Your task to perform on an android device: delete location history Image 0: 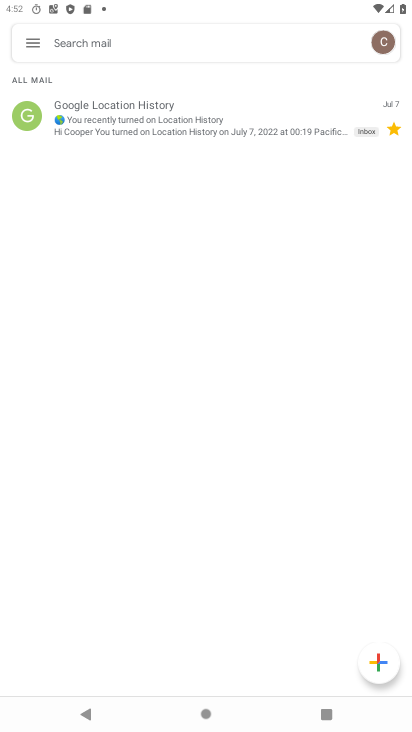
Step 0: press back button
Your task to perform on an android device: delete location history Image 1: 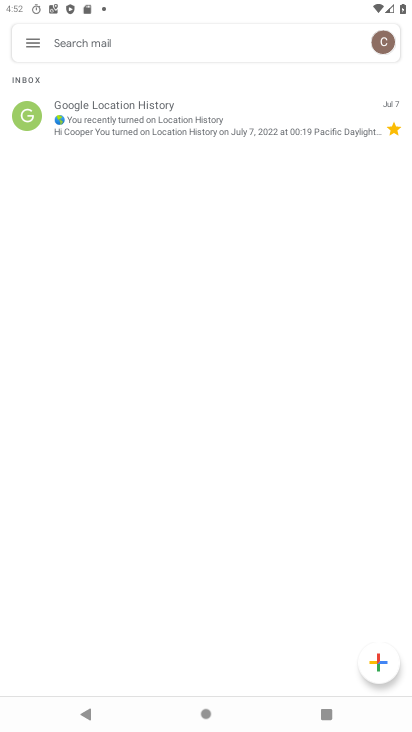
Step 1: press back button
Your task to perform on an android device: delete location history Image 2: 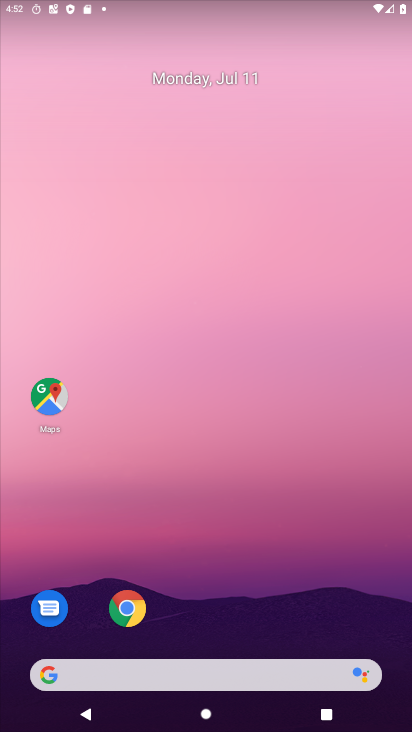
Step 2: click (184, 122)
Your task to perform on an android device: delete location history Image 3: 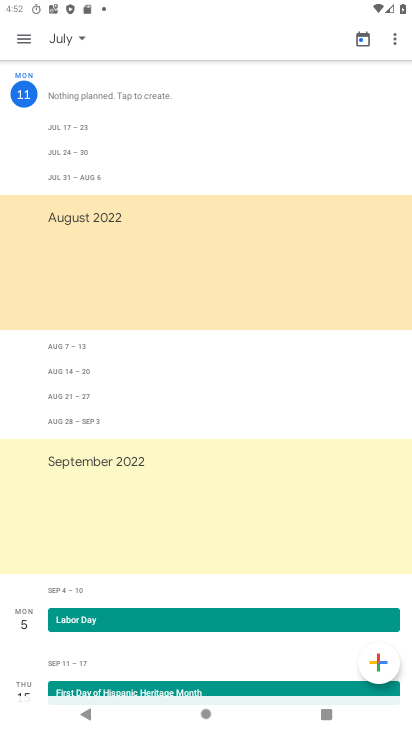
Step 3: press back button
Your task to perform on an android device: delete location history Image 4: 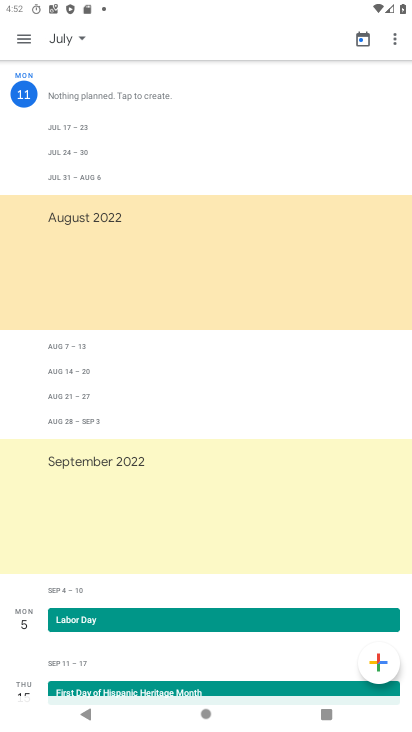
Step 4: press back button
Your task to perform on an android device: delete location history Image 5: 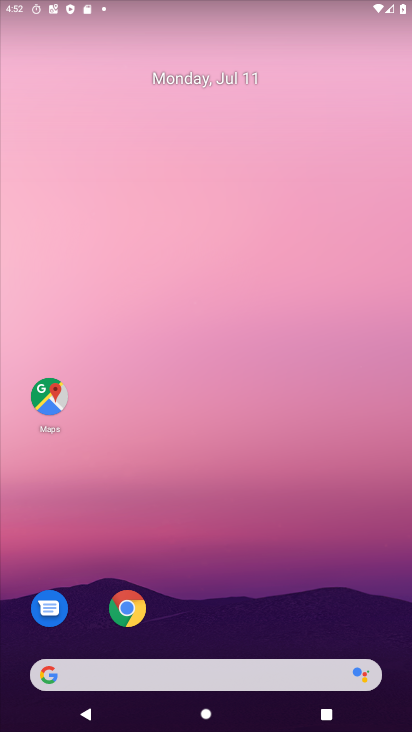
Step 5: drag from (271, 673) to (170, 36)
Your task to perform on an android device: delete location history Image 6: 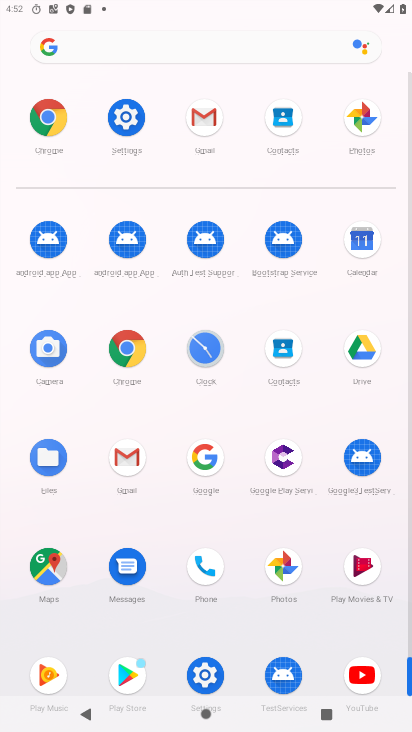
Step 6: click (133, 112)
Your task to perform on an android device: delete location history Image 7: 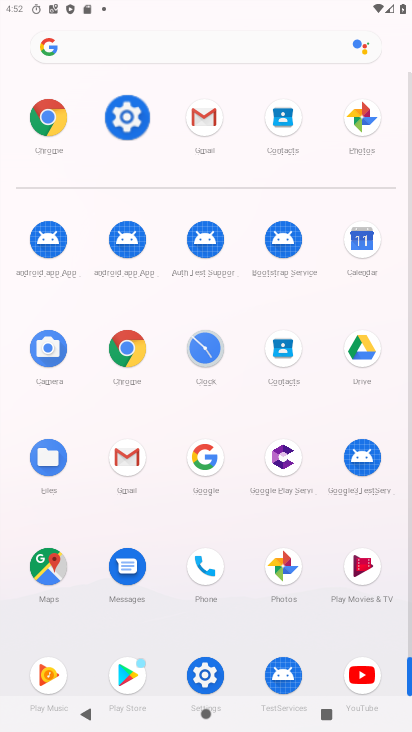
Step 7: click (121, 121)
Your task to perform on an android device: delete location history Image 8: 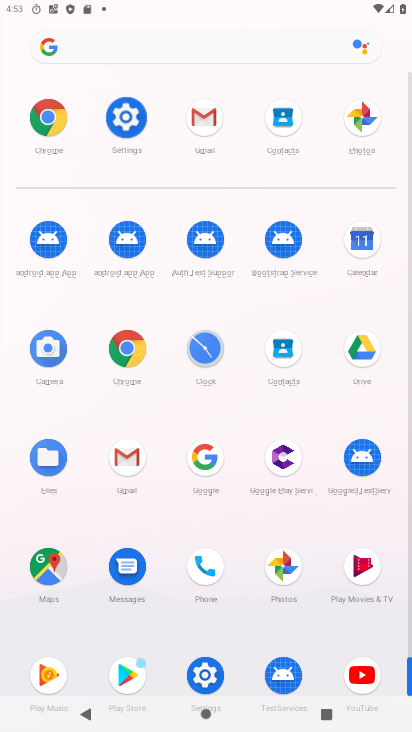
Step 8: click (121, 121)
Your task to perform on an android device: delete location history Image 9: 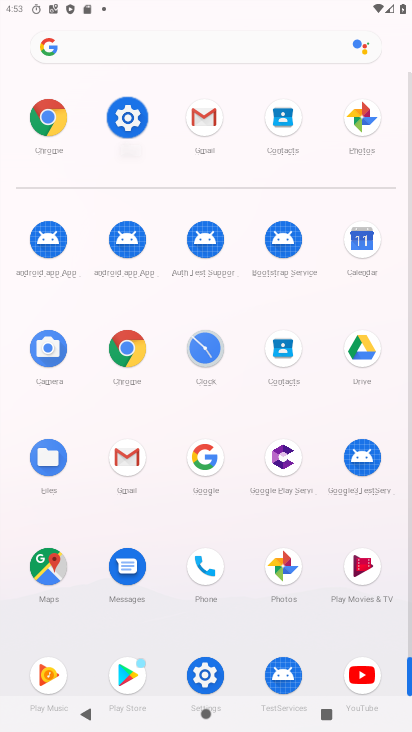
Step 9: click (121, 121)
Your task to perform on an android device: delete location history Image 10: 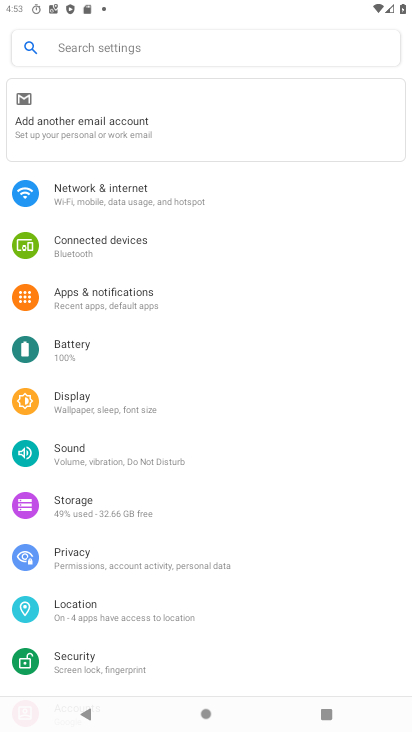
Step 10: click (65, 612)
Your task to perform on an android device: delete location history Image 11: 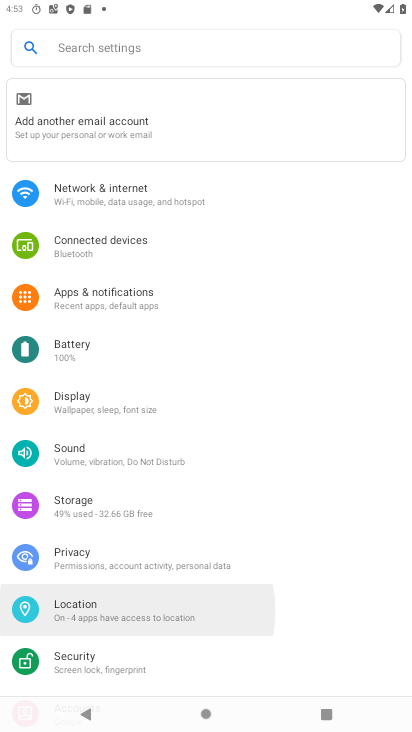
Step 11: click (74, 612)
Your task to perform on an android device: delete location history Image 12: 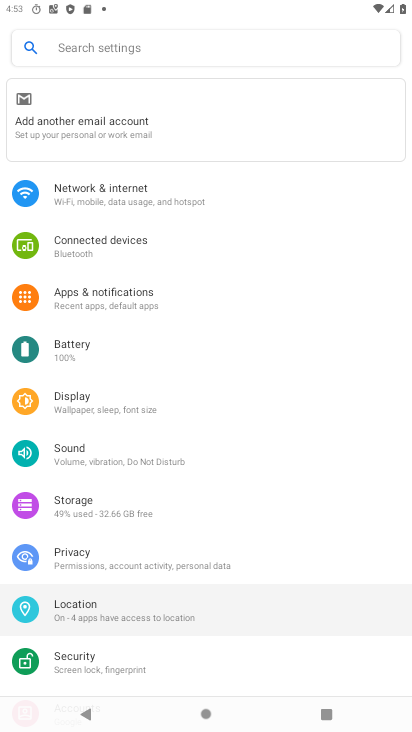
Step 12: click (106, 603)
Your task to perform on an android device: delete location history Image 13: 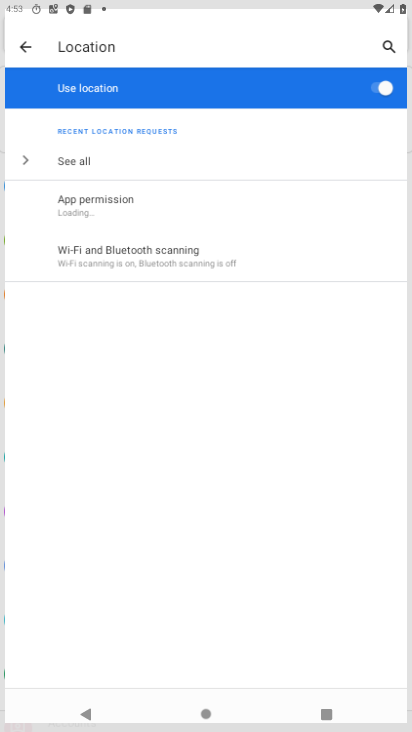
Step 13: click (107, 603)
Your task to perform on an android device: delete location history Image 14: 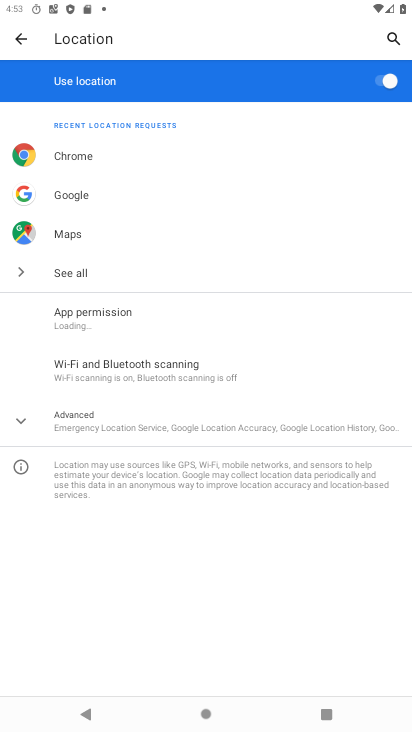
Step 14: click (191, 423)
Your task to perform on an android device: delete location history Image 15: 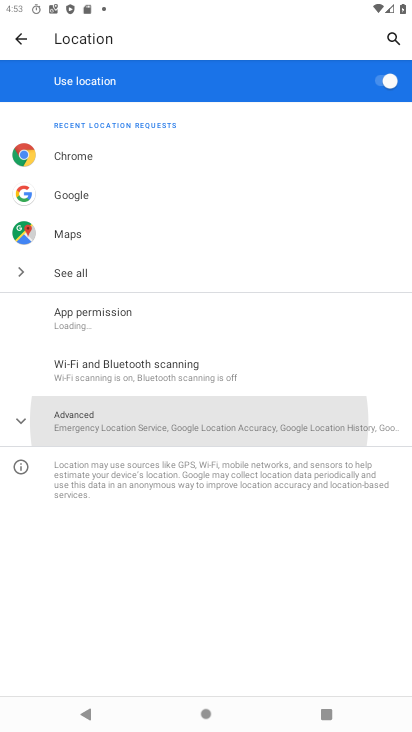
Step 15: click (191, 423)
Your task to perform on an android device: delete location history Image 16: 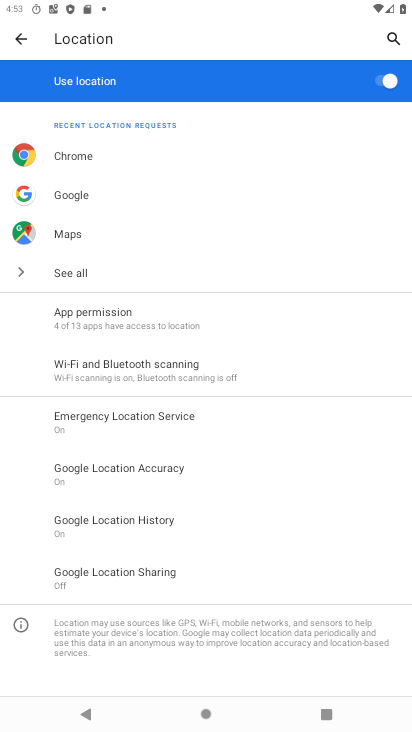
Step 16: click (151, 520)
Your task to perform on an android device: delete location history Image 17: 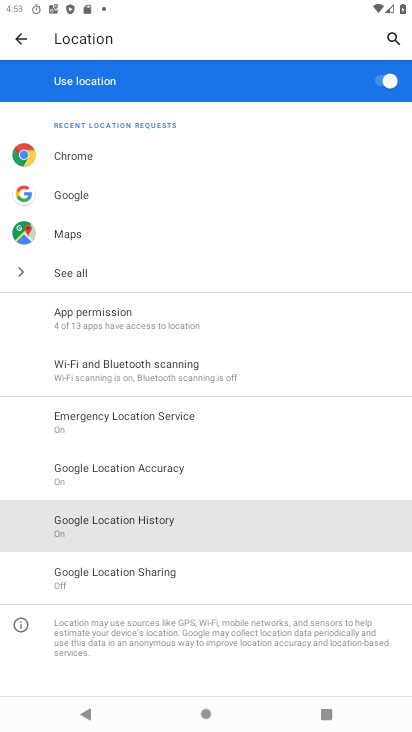
Step 17: click (150, 519)
Your task to perform on an android device: delete location history Image 18: 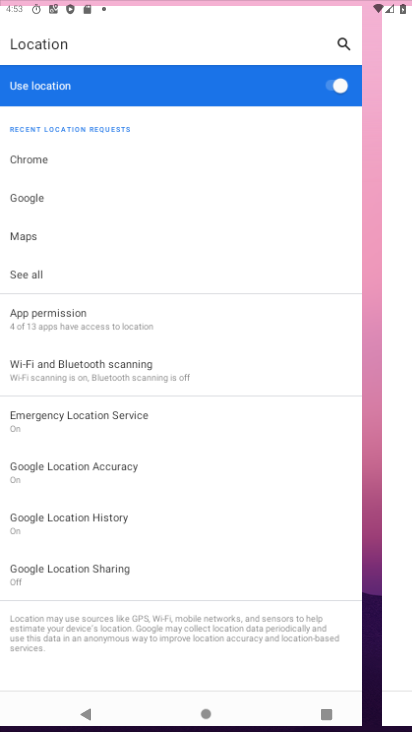
Step 18: click (150, 519)
Your task to perform on an android device: delete location history Image 19: 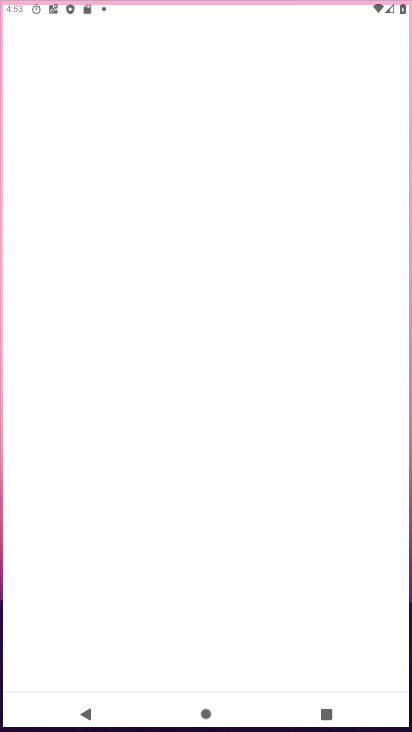
Step 19: click (161, 520)
Your task to perform on an android device: delete location history Image 20: 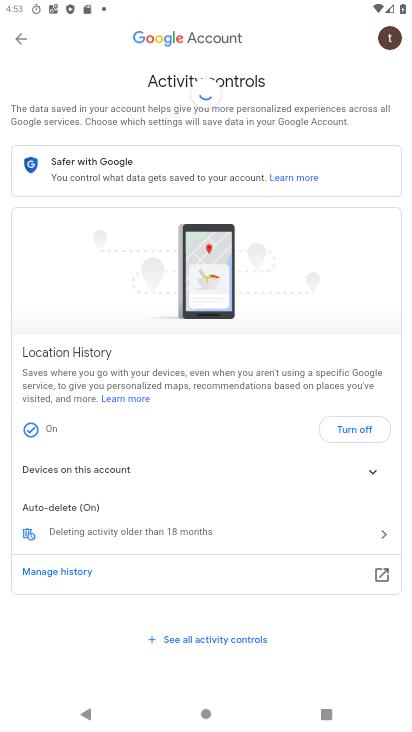
Step 20: drag from (252, 574) to (254, 178)
Your task to perform on an android device: delete location history Image 21: 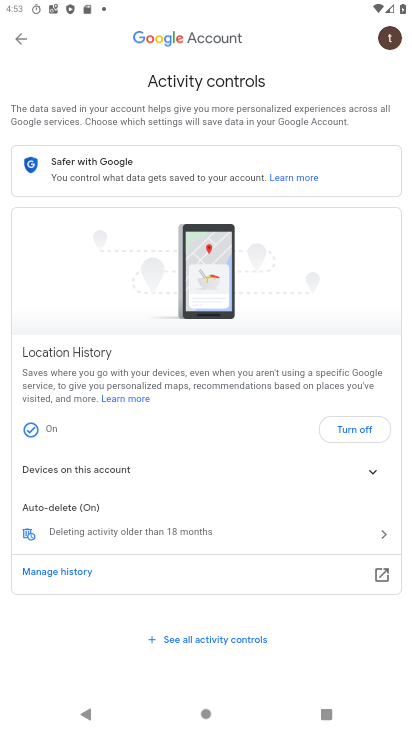
Step 21: drag from (180, 516) to (170, 307)
Your task to perform on an android device: delete location history Image 22: 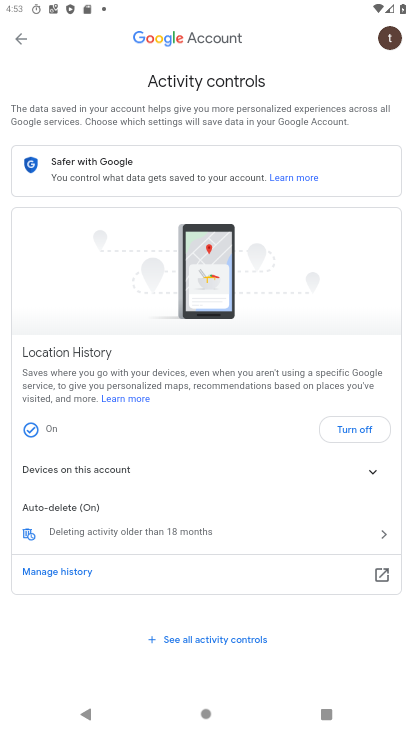
Step 22: click (58, 517)
Your task to perform on an android device: delete location history Image 23: 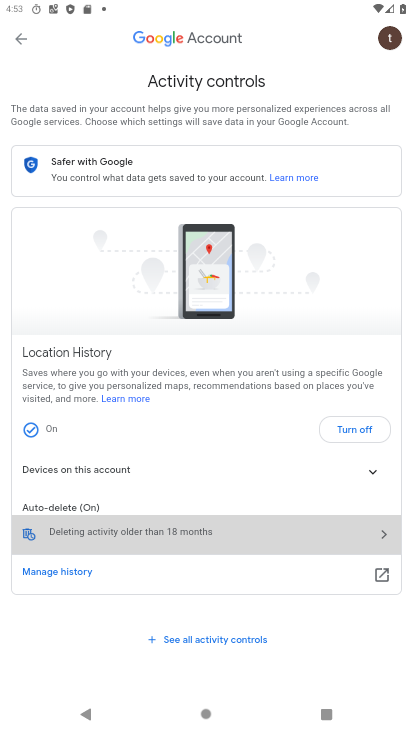
Step 23: click (61, 501)
Your task to perform on an android device: delete location history Image 24: 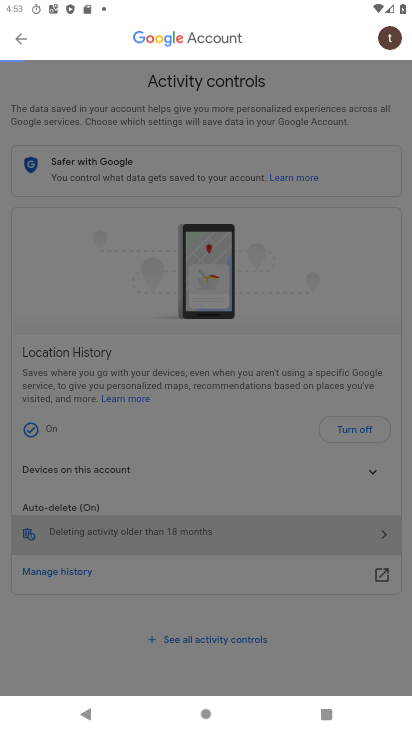
Step 24: click (60, 501)
Your task to perform on an android device: delete location history Image 25: 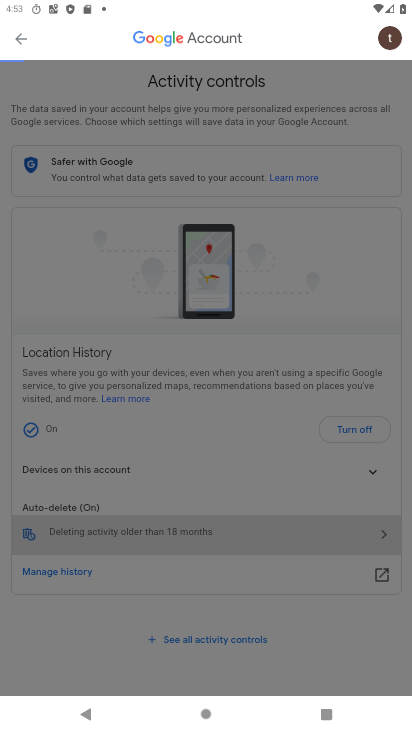
Step 25: click (60, 501)
Your task to perform on an android device: delete location history Image 26: 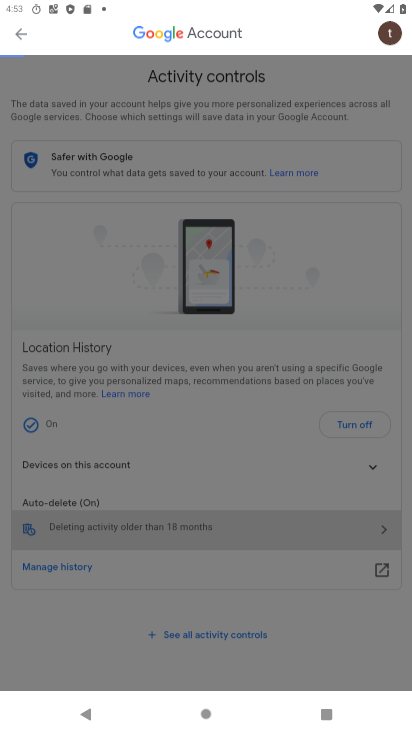
Step 26: click (62, 505)
Your task to perform on an android device: delete location history Image 27: 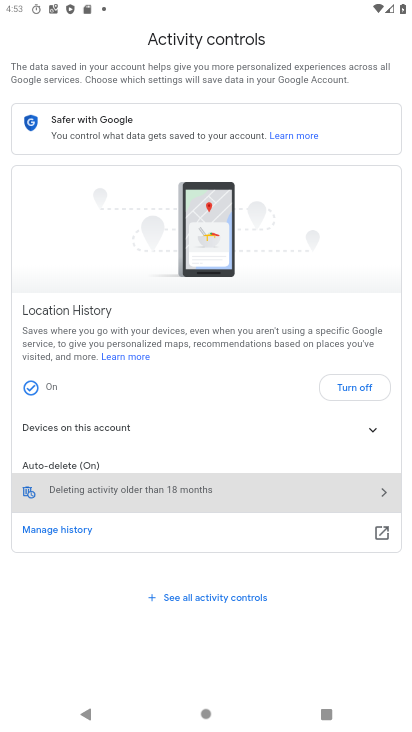
Step 27: click (46, 490)
Your task to perform on an android device: delete location history Image 28: 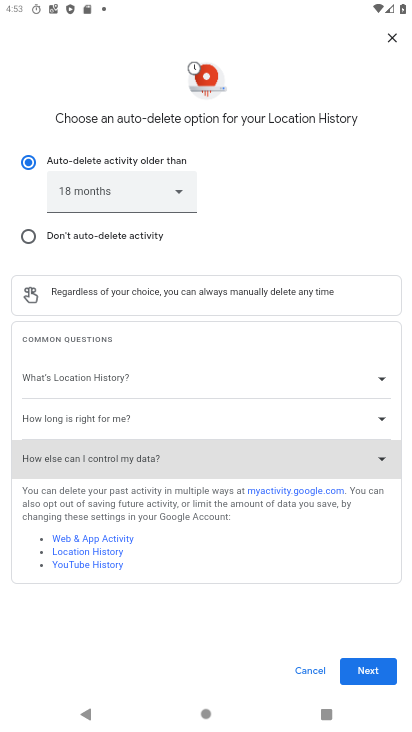
Step 28: click (66, 507)
Your task to perform on an android device: delete location history Image 29: 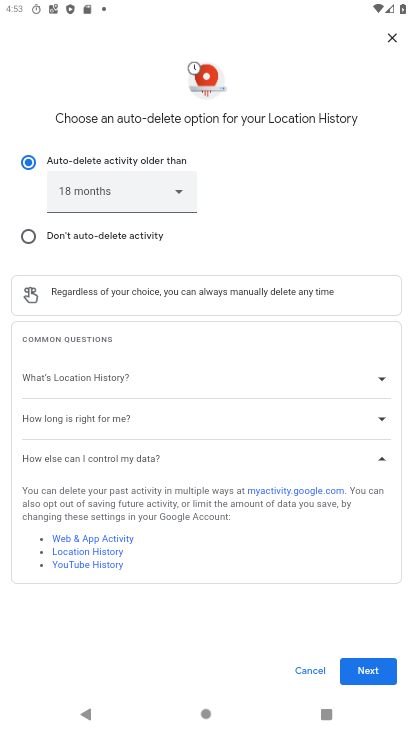
Step 29: click (368, 668)
Your task to perform on an android device: delete location history Image 30: 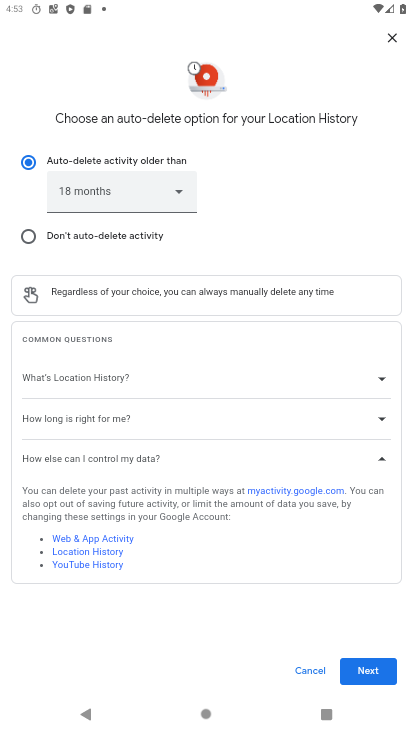
Step 30: click (370, 666)
Your task to perform on an android device: delete location history Image 31: 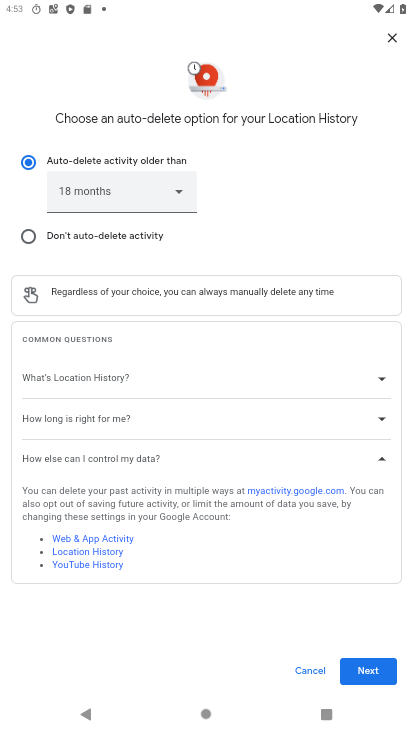
Step 31: click (373, 666)
Your task to perform on an android device: delete location history Image 32: 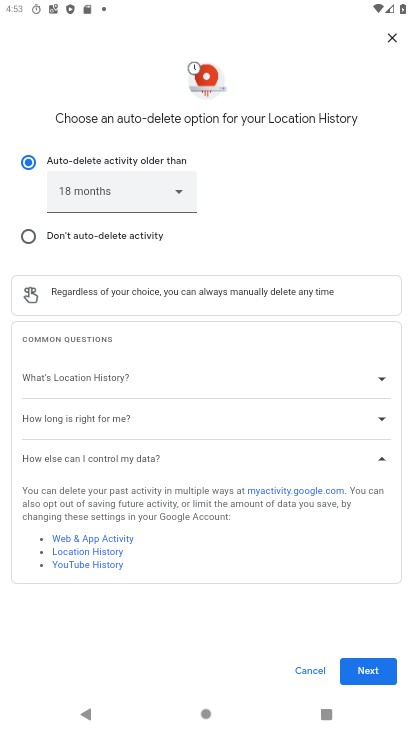
Step 32: click (373, 666)
Your task to perform on an android device: delete location history Image 33: 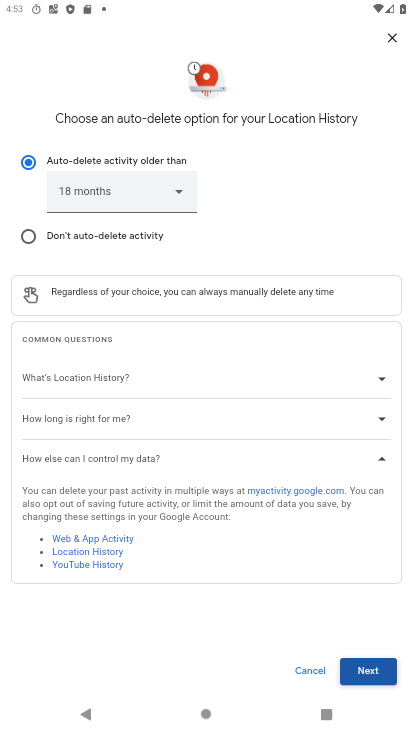
Step 33: click (373, 666)
Your task to perform on an android device: delete location history Image 34: 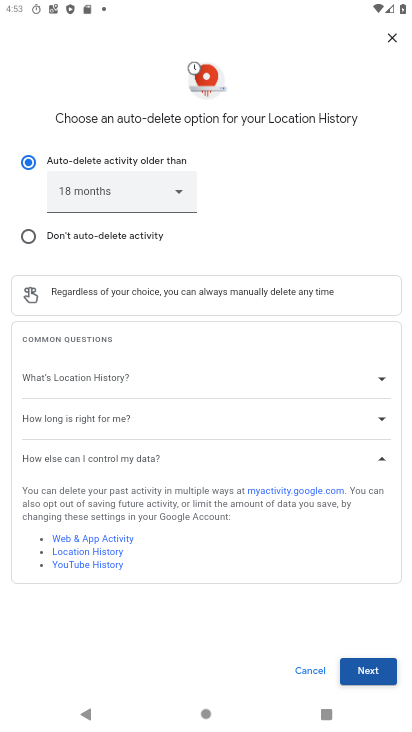
Step 34: click (374, 667)
Your task to perform on an android device: delete location history Image 35: 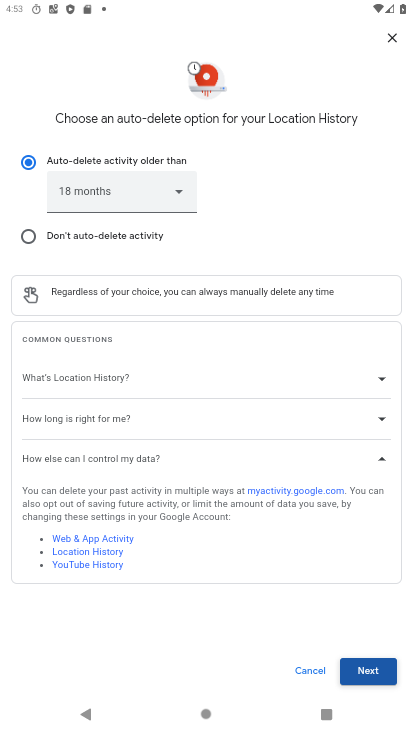
Step 35: click (390, 666)
Your task to perform on an android device: delete location history Image 36: 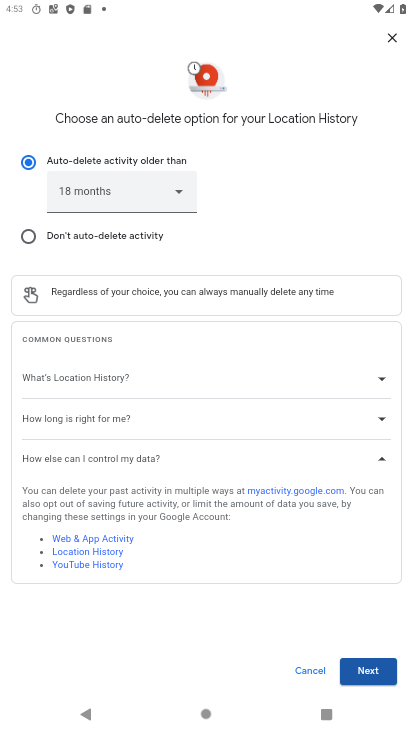
Step 36: click (363, 672)
Your task to perform on an android device: delete location history Image 37: 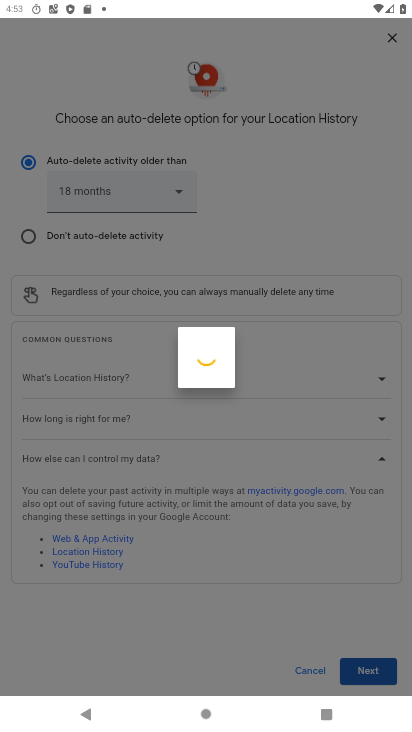
Step 37: click (358, 665)
Your task to perform on an android device: delete location history Image 38: 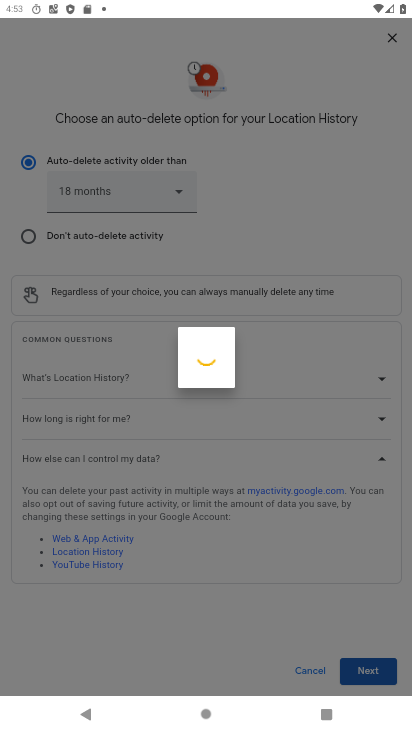
Step 38: click (362, 660)
Your task to perform on an android device: delete location history Image 39: 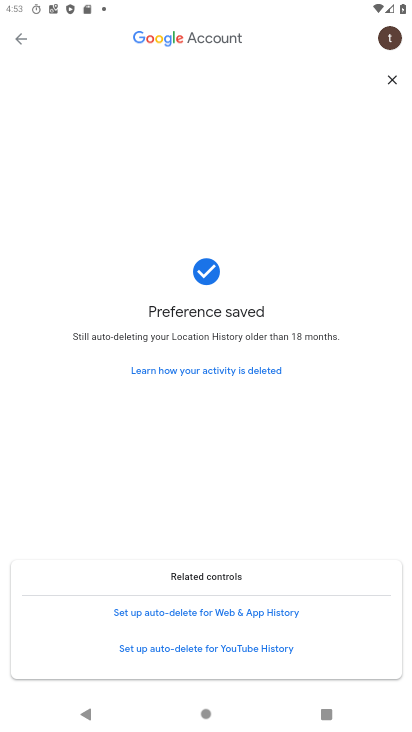
Step 39: click (357, 663)
Your task to perform on an android device: delete location history Image 40: 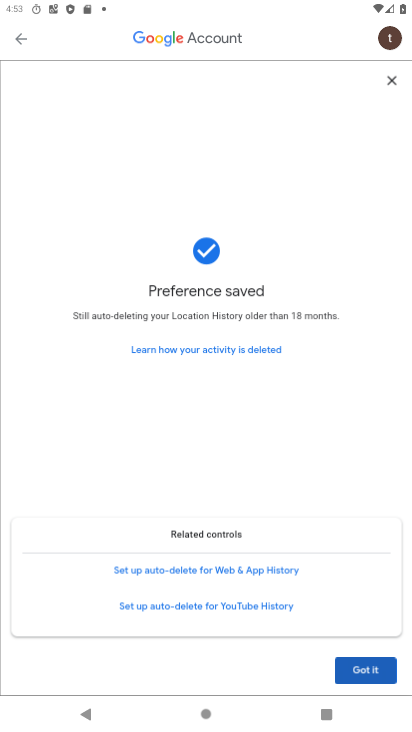
Step 40: click (359, 666)
Your task to perform on an android device: delete location history Image 41: 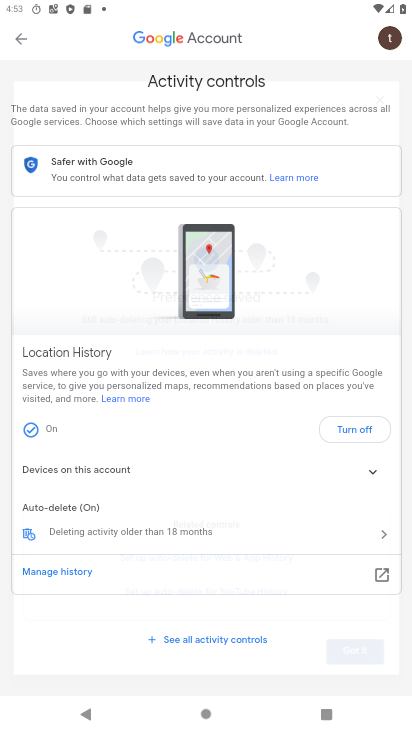
Step 41: click (361, 666)
Your task to perform on an android device: delete location history Image 42: 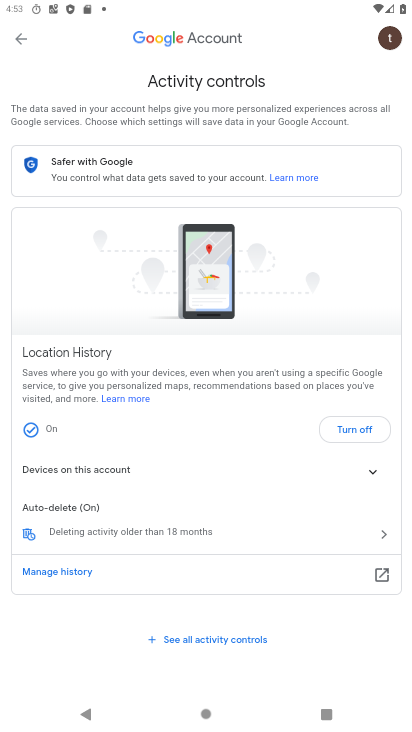
Step 42: click (362, 667)
Your task to perform on an android device: delete location history Image 43: 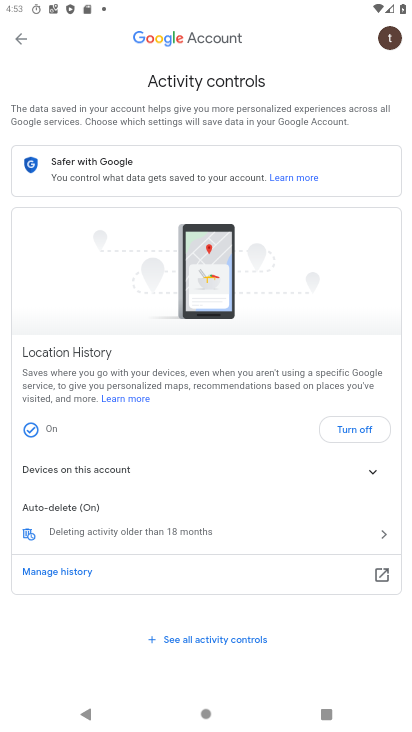
Step 43: task complete